Your task to perform on an android device: Is it going to rain tomorrow? Image 0: 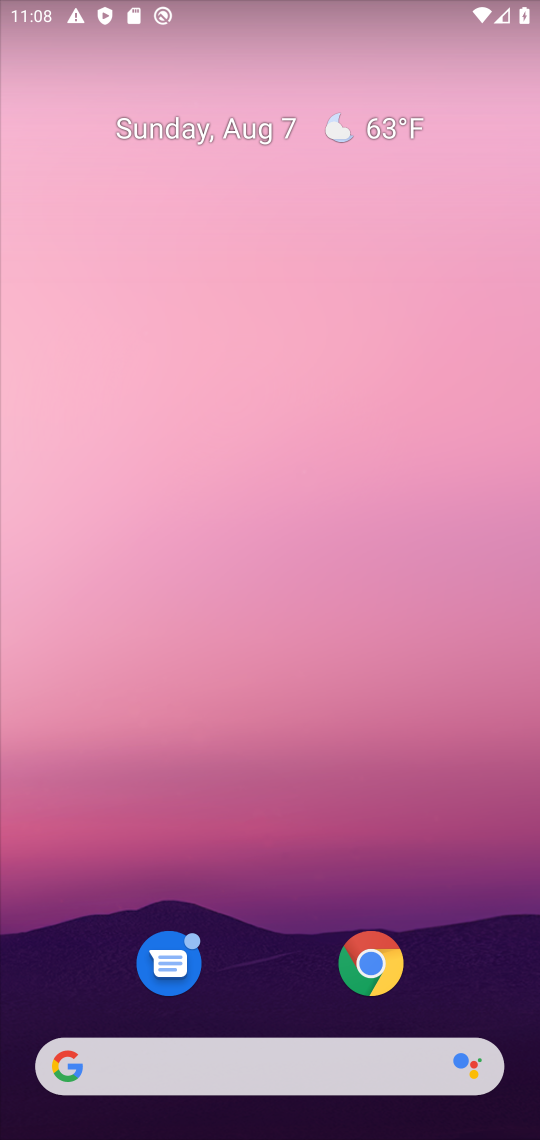
Step 0: drag from (488, 966) to (216, 47)
Your task to perform on an android device: Is it going to rain tomorrow? Image 1: 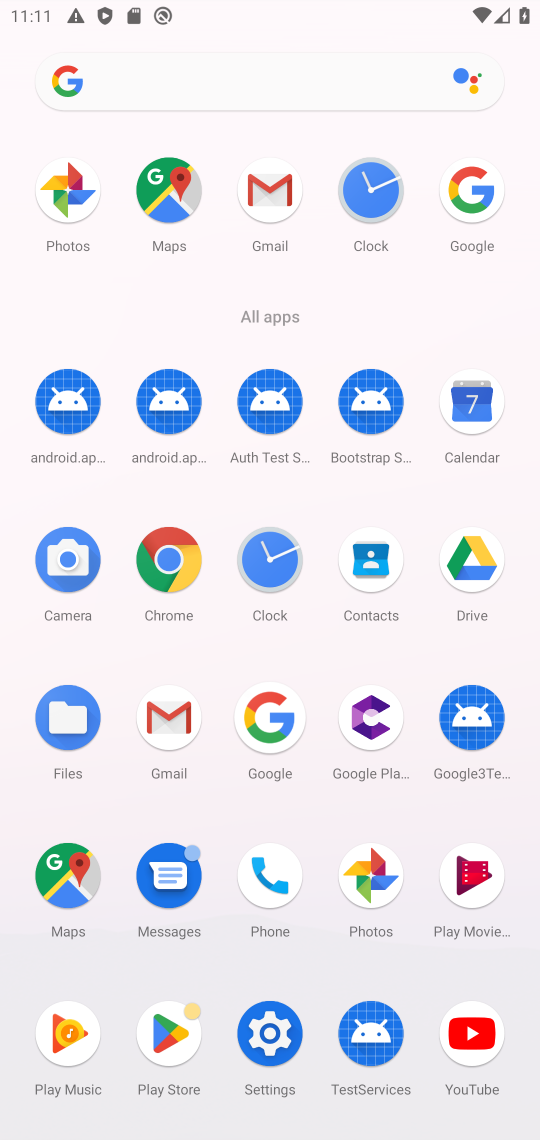
Step 1: click (277, 742)
Your task to perform on an android device: Is it going to rain tomorrow? Image 2: 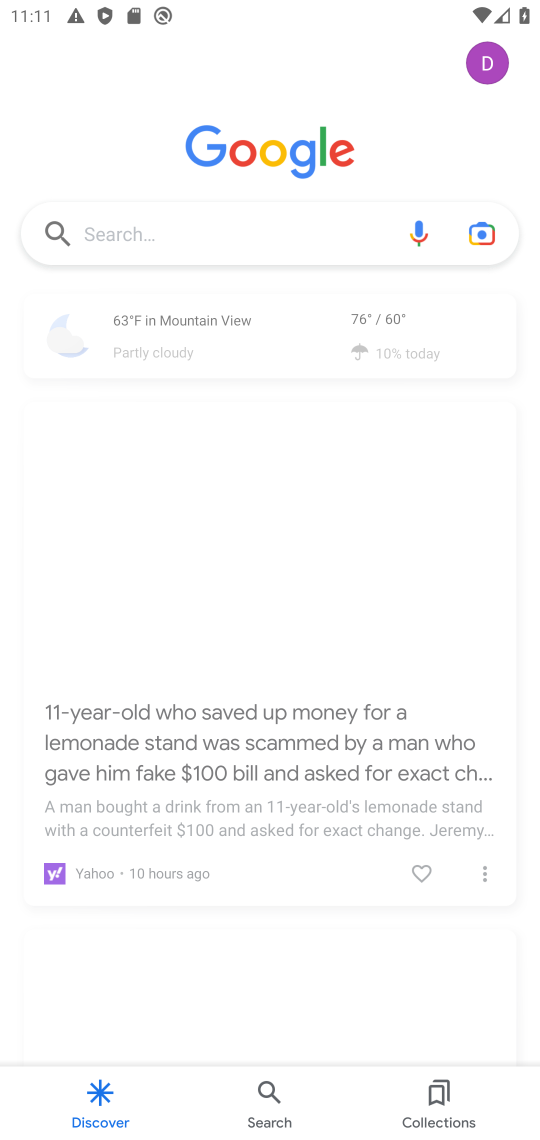
Step 2: click (174, 222)
Your task to perform on an android device: Is it going to rain tomorrow? Image 3: 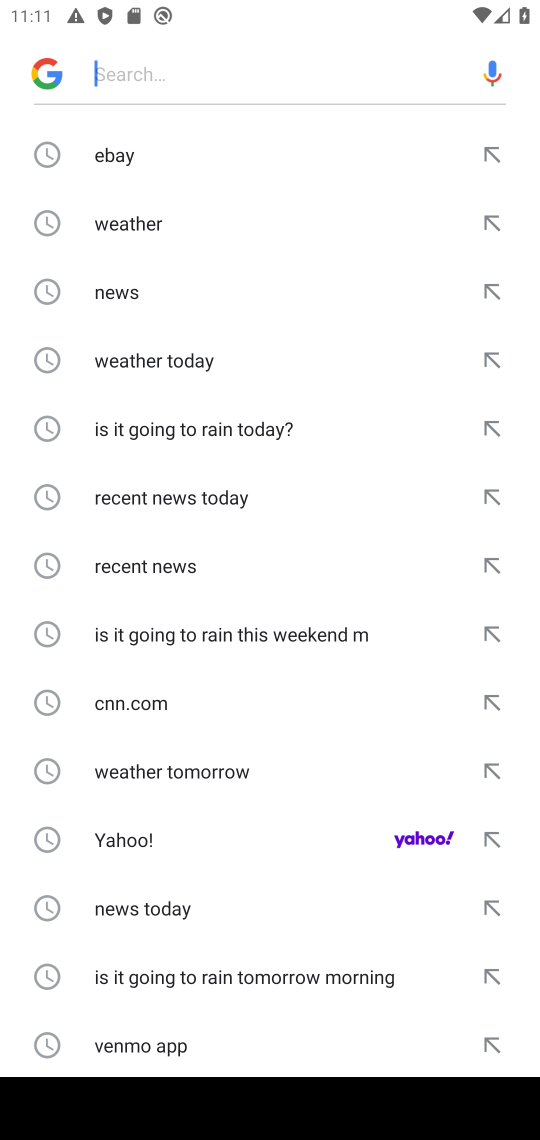
Step 3: drag from (165, 1027) to (207, 347)
Your task to perform on an android device: Is it going to rain tomorrow? Image 4: 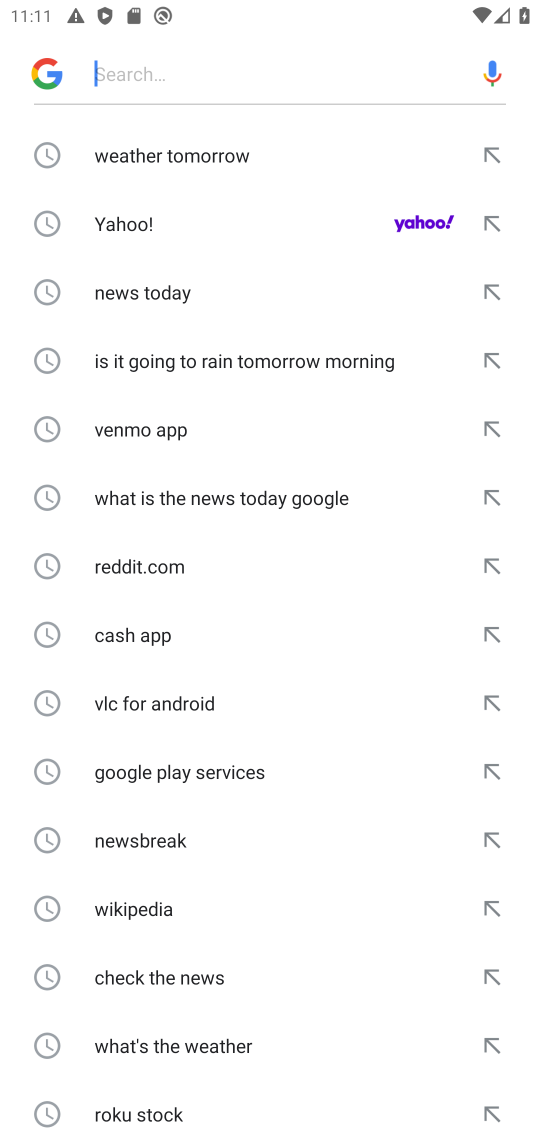
Step 4: drag from (188, 1064) to (325, 337)
Your task to perform on an android device: Is it going to rain tomorrow? Image 5: 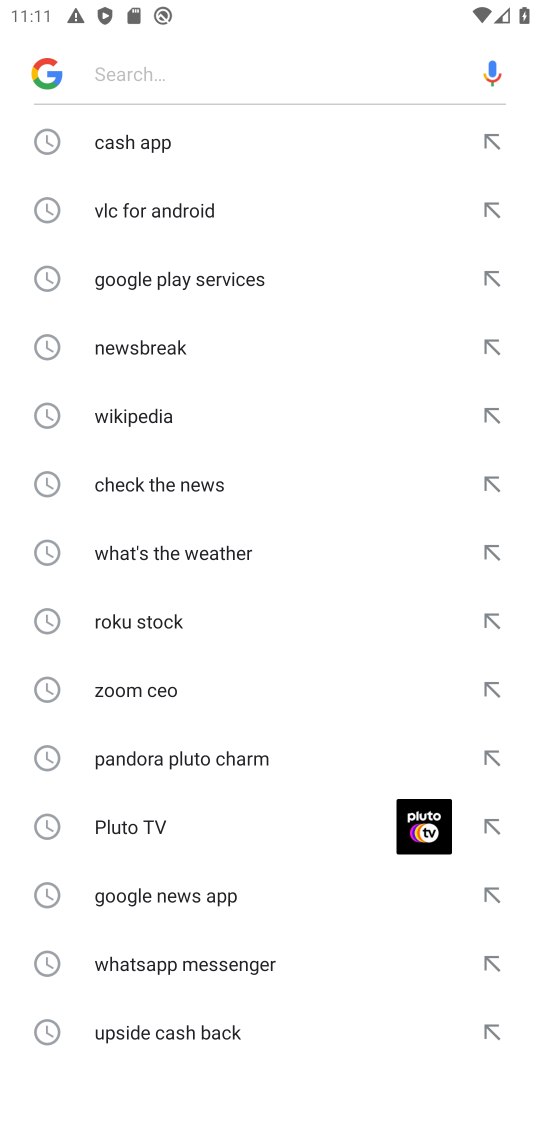
Step 5: type "Is it going to rain tomorrow?"
Your task to perform on an android device: Is it going to rain tomorrow? Image 6: 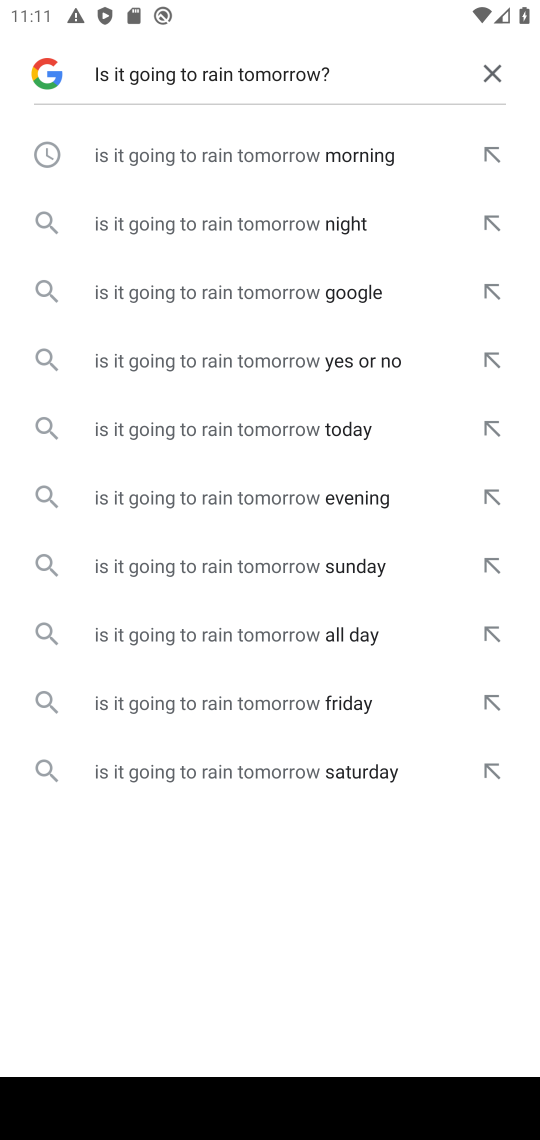
Step 6: task complete